Your task to perform on an android device: turn off data saver in the chrome app Image 0: 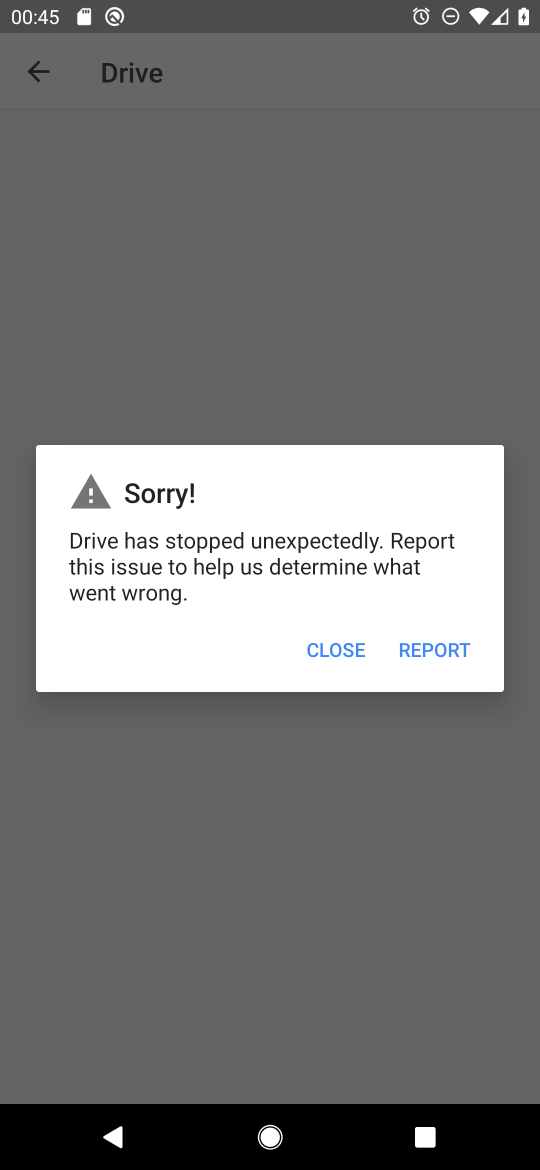
Step 0: press home button
Your task to perform on an android device: turn off data saver in the chrome app Image 1: 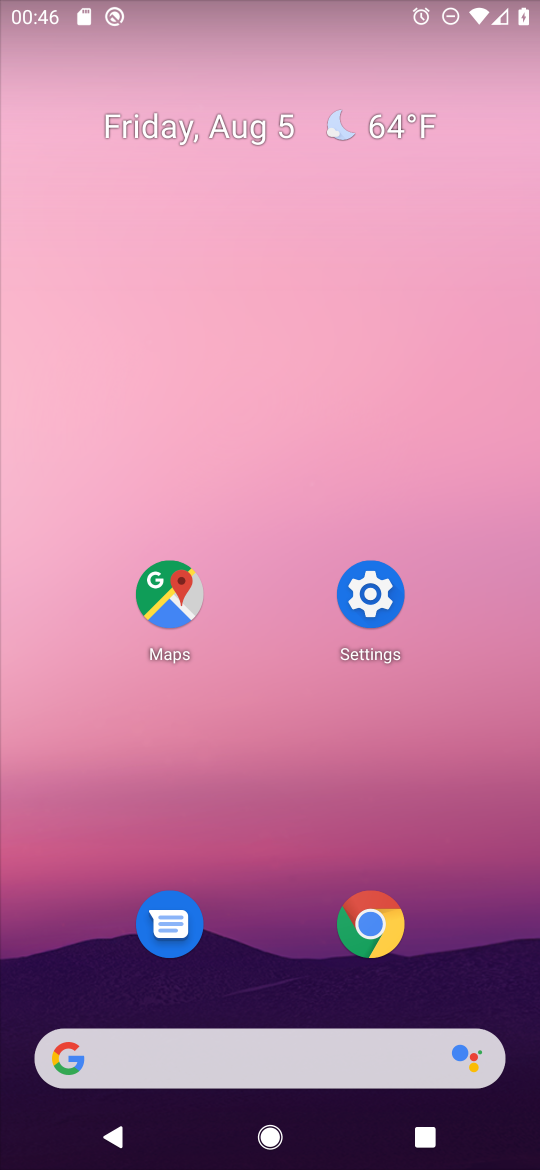
Step 1: click (370, 599)
Your task to perform on an android device: turn off data saver in the chrome app Image 2: 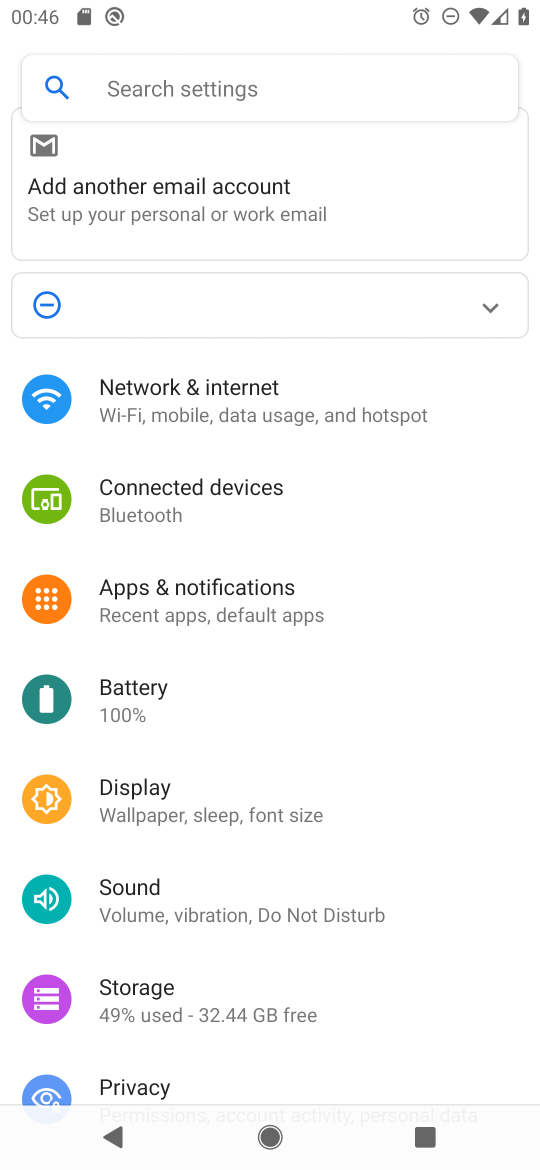
Step 2: press home button
Your task to perform on an android device: turn off data saver in the chrome app Image 3: 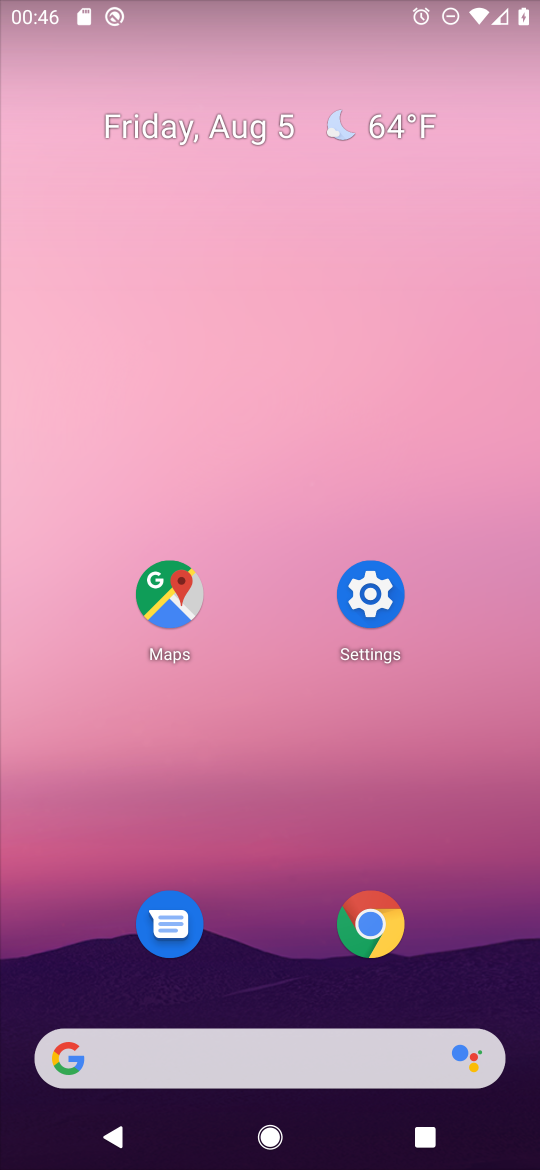
Step 3: click (374, 921)
Your task to perform on an android device: turn off data saver in the chrome app Image 4: 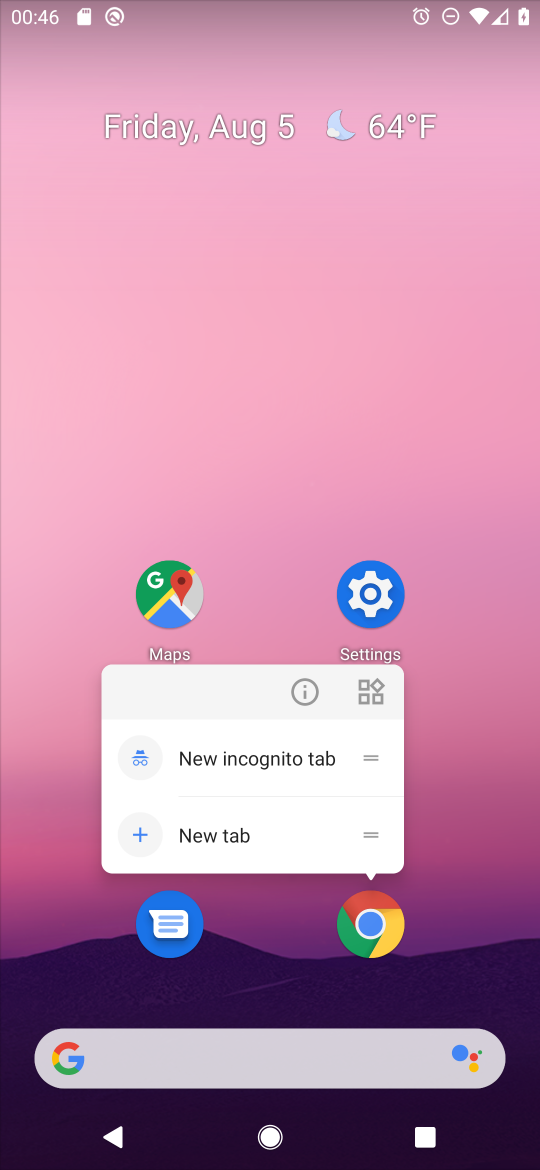
Step 4: click (369, 929)
Your task to perform on an android device: turn off data saver in the chrome app Image 5: 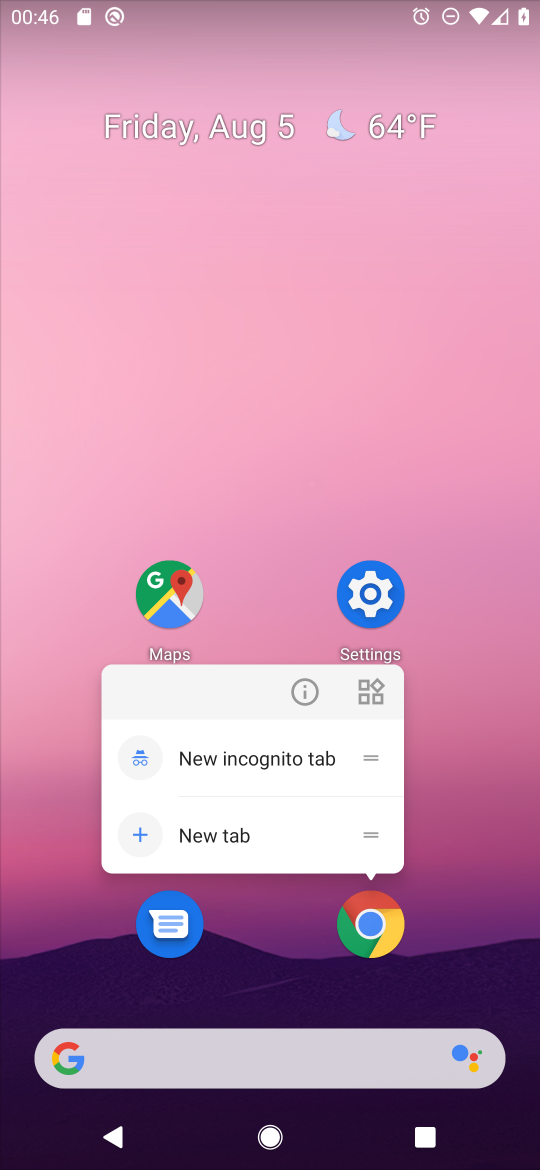
Step 5: click (371, 934)
Your task to perform on an android device: turn off data saver in the chrome app Image 6: 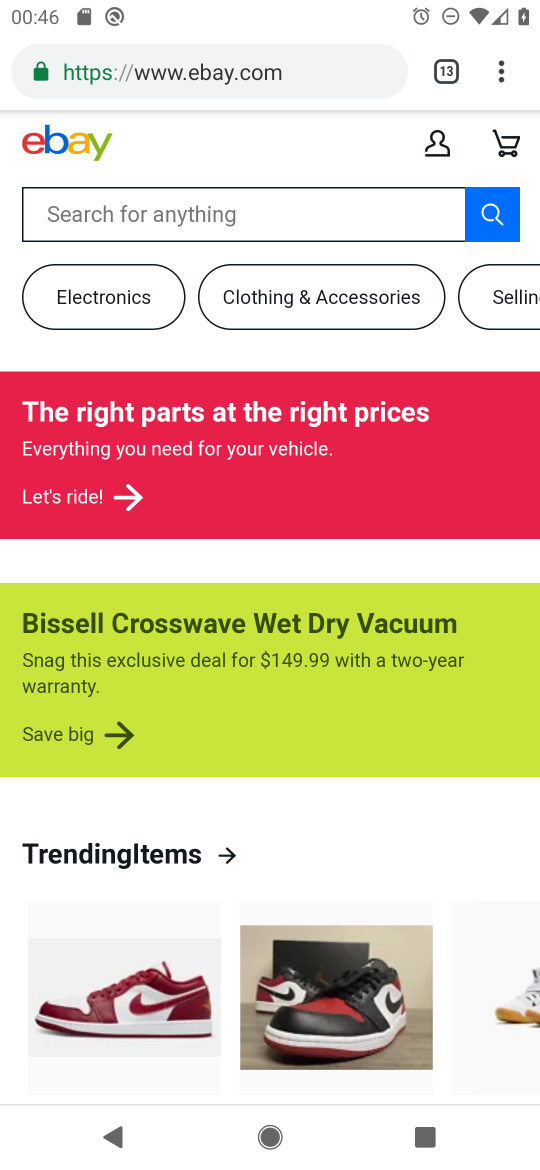
Step 6: drag from (492, 66) to (314, 864)
Your task to perform on an android device: turn off data saver in the chrome app Image 7: 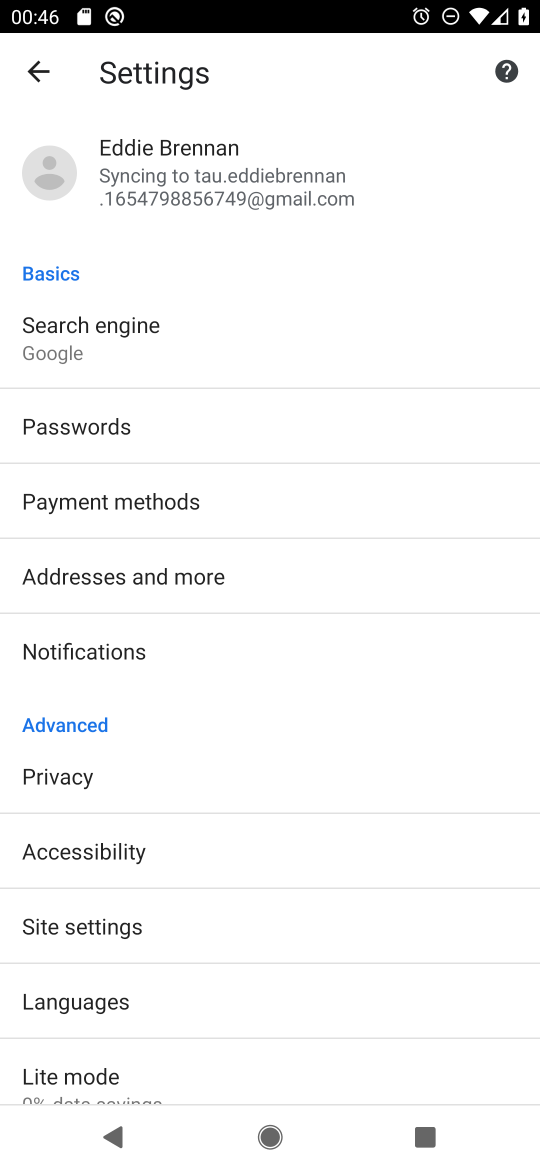
Step 7: click (96, 1081)
Your task to perform on an android device: turn off data saver in the chrome app Image 8: 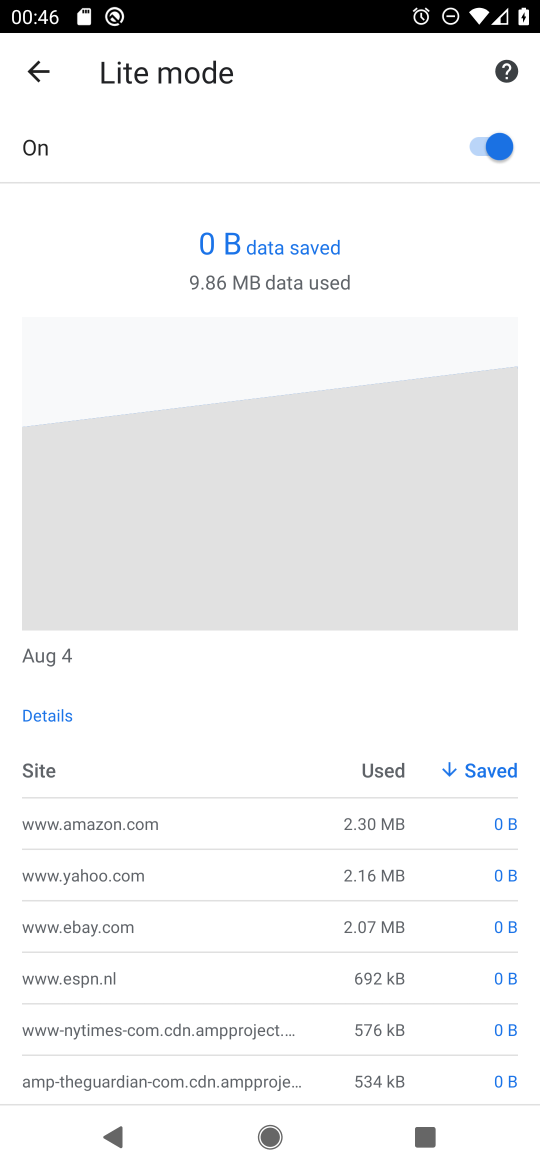
Step 8: click (474, 141)
Your task to perform on an android device: turn off data saver in the chrome app Image 9: 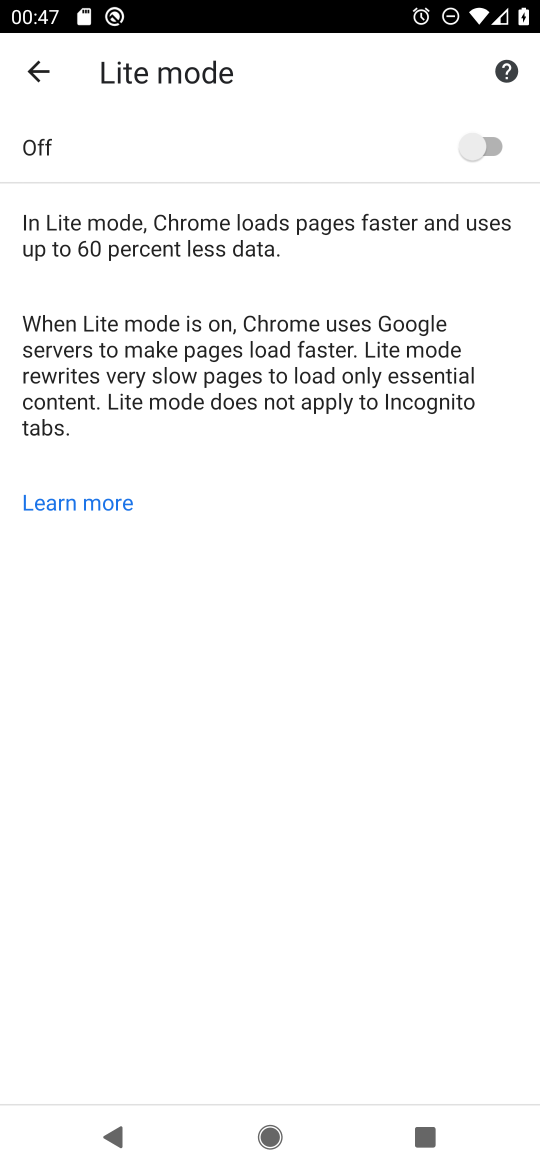
Step 9: task complete